Your task to perform on an android device: set an alarm Image 0: 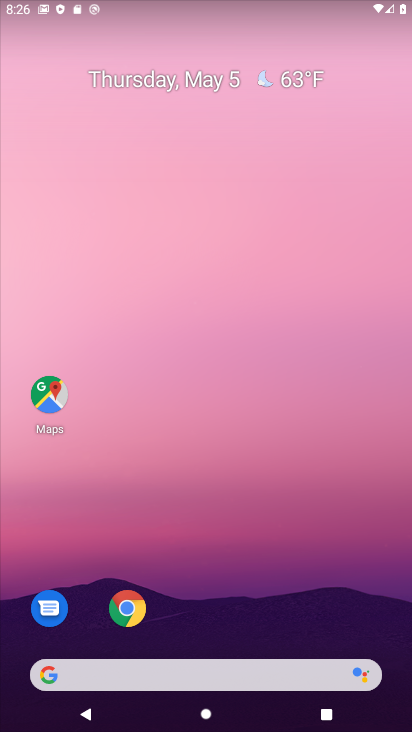
Step 0: drag from (176, 621) to (64, 177)
Your task to perform on an android device: set an alarm Image 1: 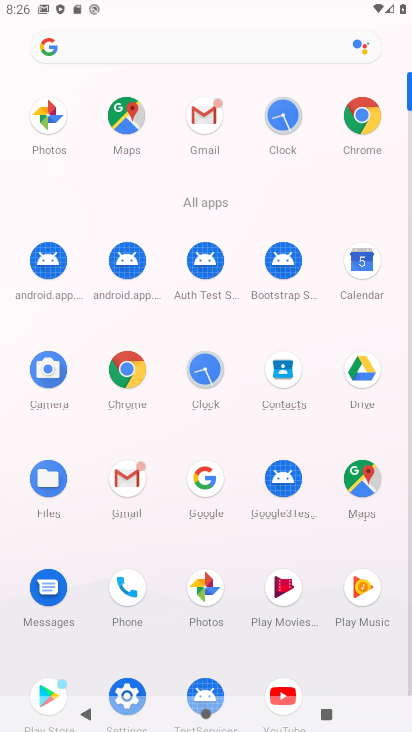
Step 1: click (206, 358)
Your task to perform on an android device: set an alarm Image 2: 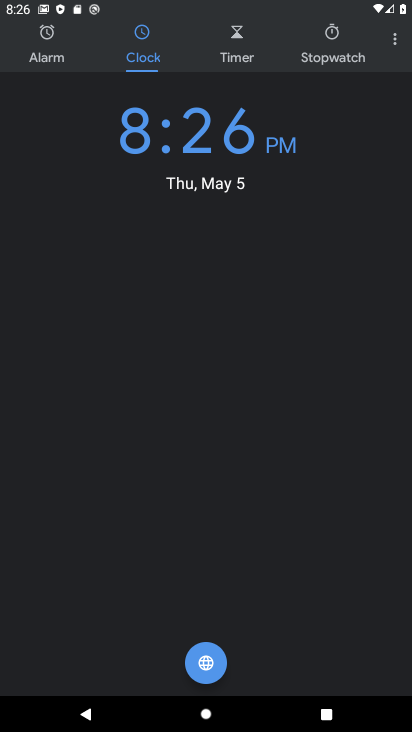
Step 2: click (44, 37)
Your task to perform on an android device: set an alarm Image 3: 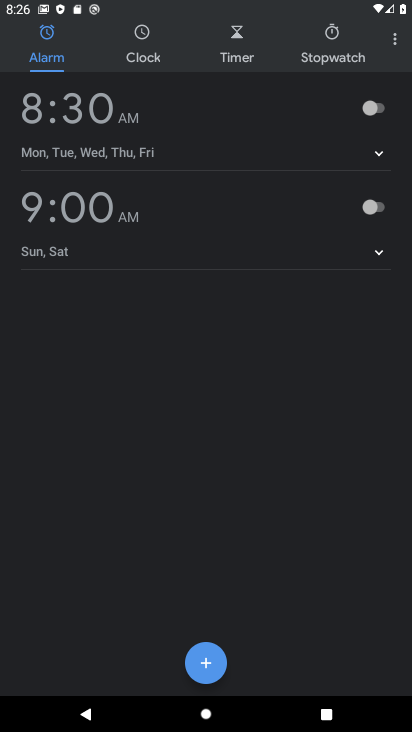
Step 3: click (214, 659)
Your task to perform on an android device: set an alarm Image 4: 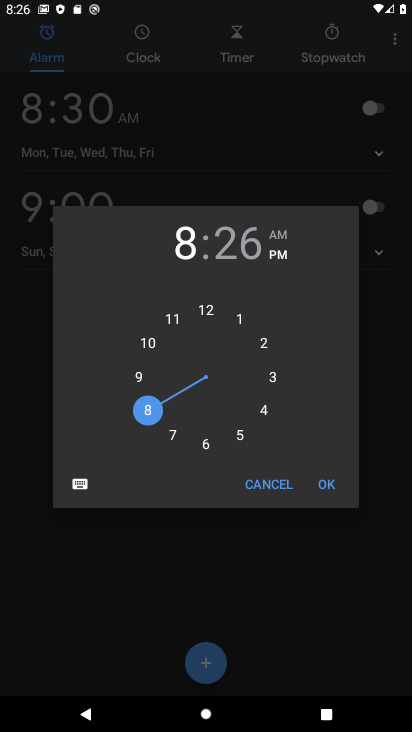
Step 4: click (326, 483)
Your task to perform on an android device: set an alarm Image 5: 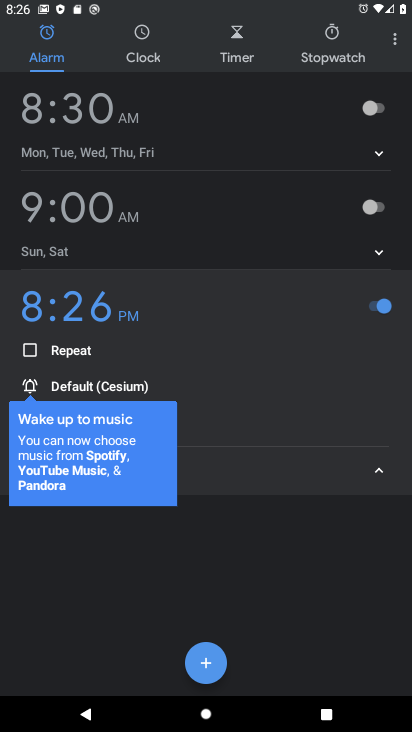
Step 5: click (385, 313)
Your task to perform on an android device: set an alarm Image 6: 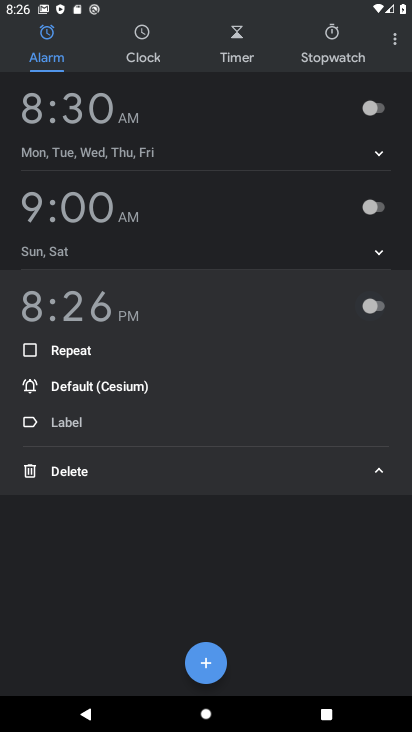
Step 6: click (385, 312)
Your task to perform on an android device: set an alarm Image 7: 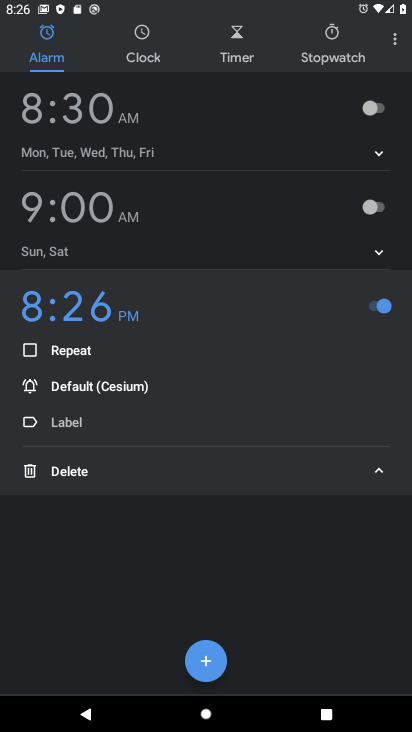
Step 7: click (380, 476)
Your task to perform on an android device: set an alarm Image 8: 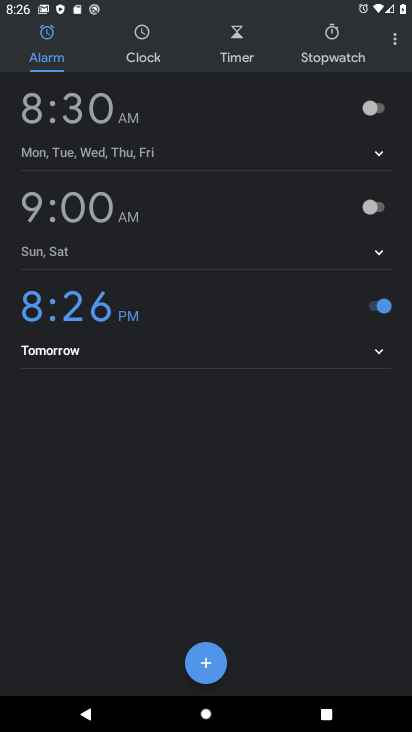
Step 8: task complete